Your task to perform on an android device: Add dell xps to the cart on ebay Image 0: 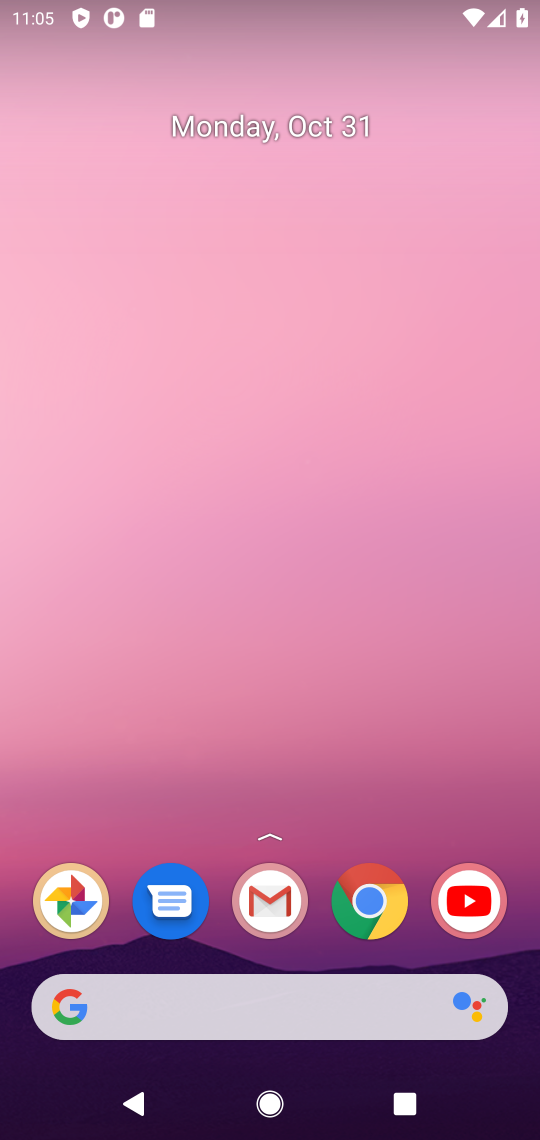
Step 0: drag from (219, 728) to (219, 384)
Your task to perform on an android device: Add dell xps to the cart on ebay Image 1: 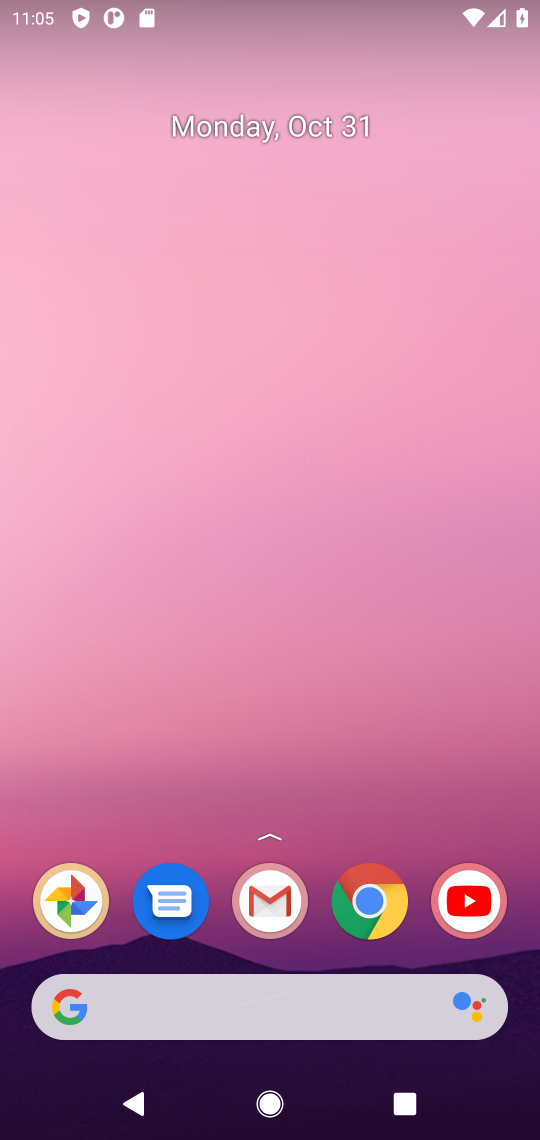
Step 1: drag from (203, 864) to (223, 245)
Your task to perform on an android device: Add dell xps to the cart on ebay Image 2: 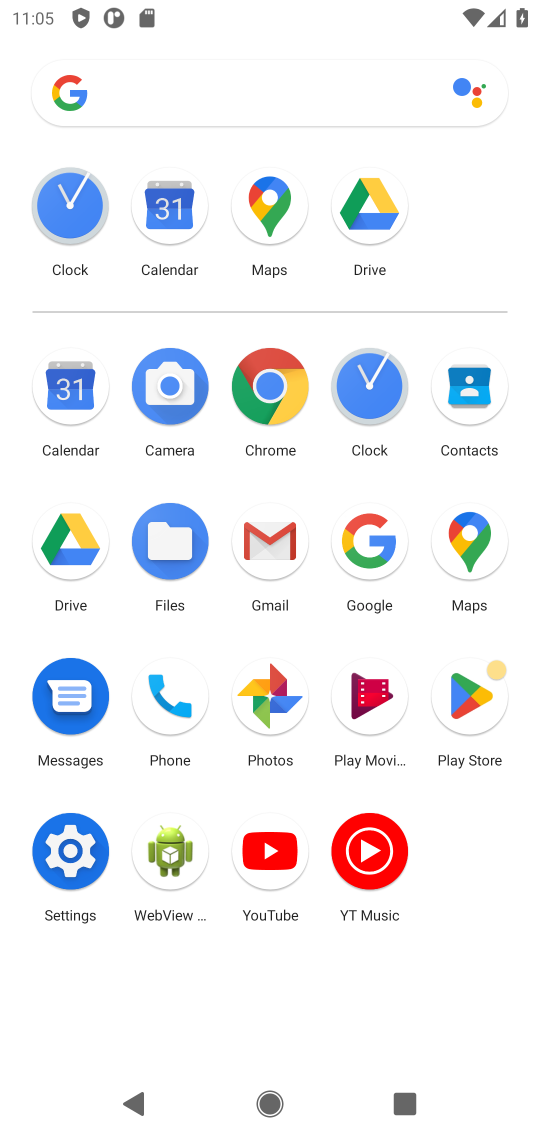
Step 2: click (377, 529)
Your task to perform on an android device: Add dell xps to the cart on ebay Image 3: 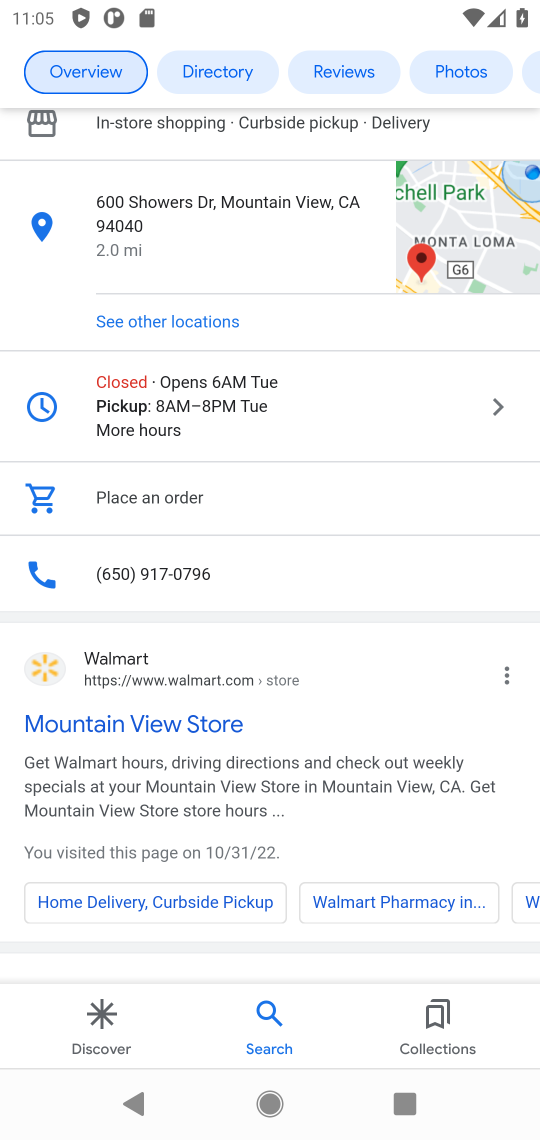
Step 3: drag from (243, 283) to (140, 1009)
Your task to perform on an android device: Add dell xps to the cart on ebay Image 4: 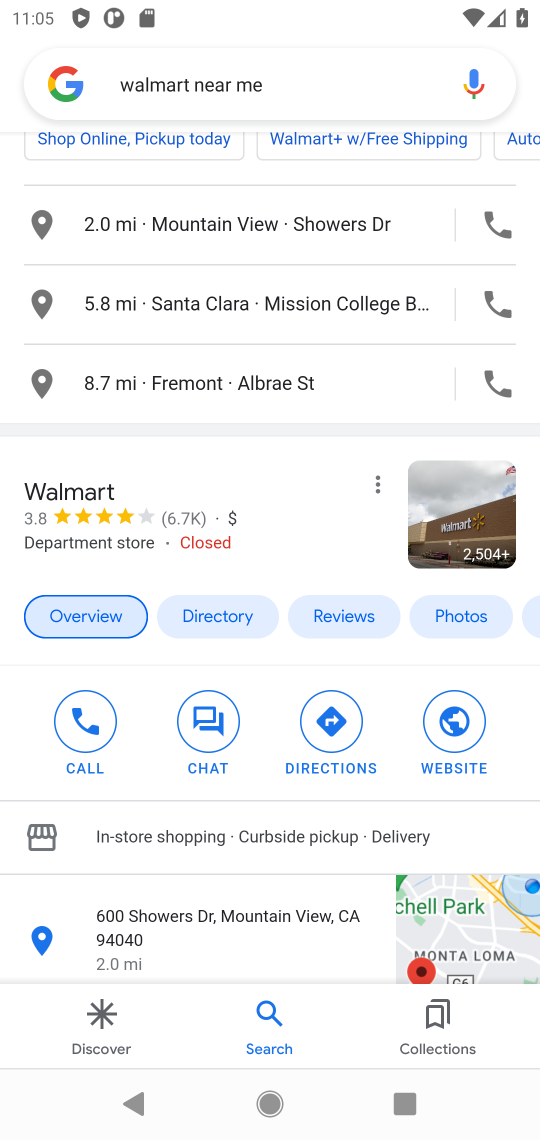
Step 4: click (256, 86)
Your task to perform on an android device: Add dell xps to the cart on ebay Image 5: 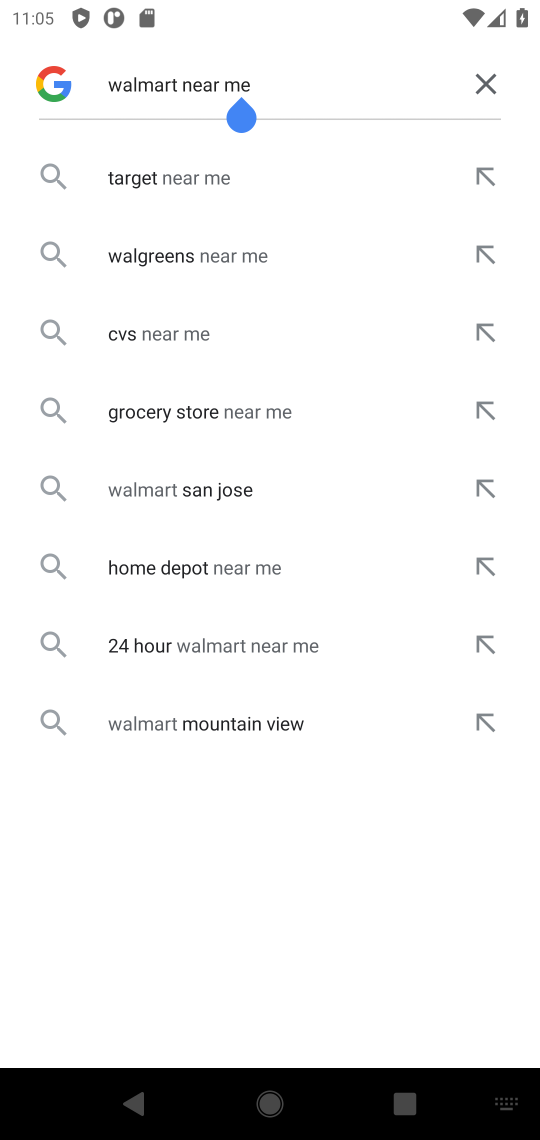
Step 5: click (474, 83)
Your task to perform on an android device: Add dell xps to the cart on ebay Image 6: 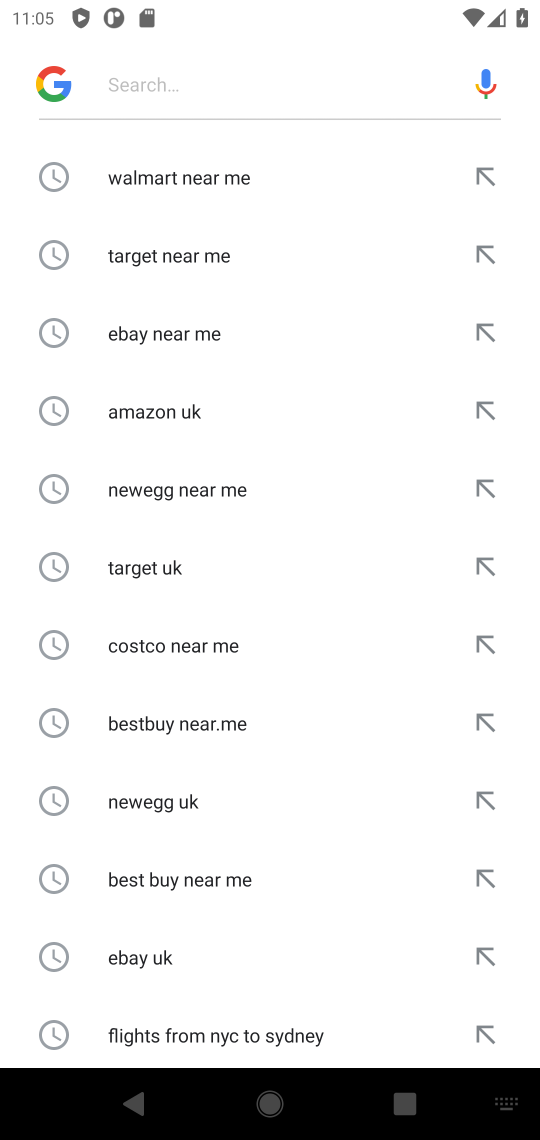
Step 6: click (211, 88)
Your task to perform on an android device: Add dell xps to the cart on ebay Image 7: 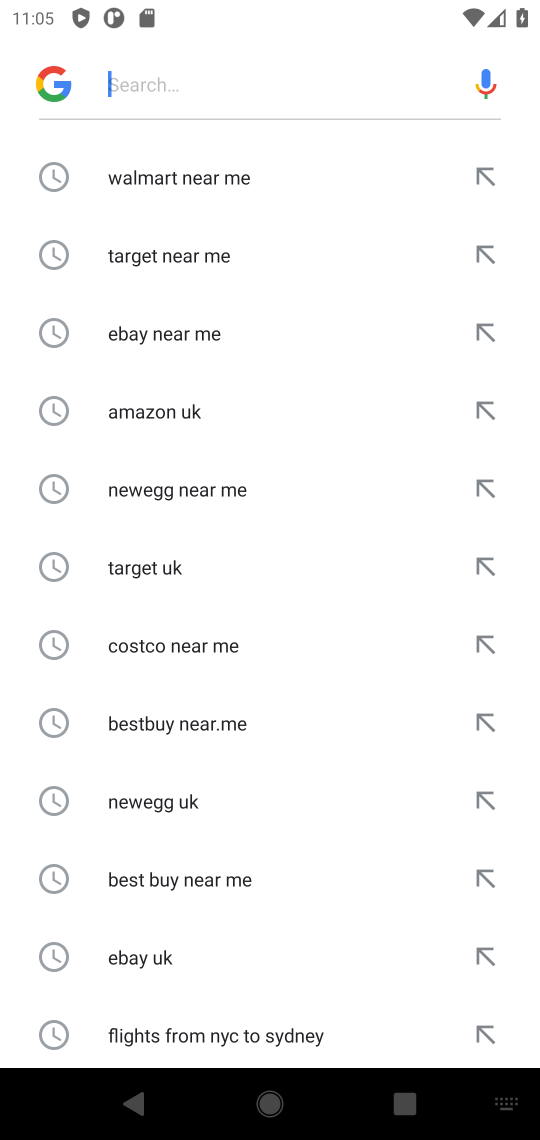
Step 7: type "ebay "
Your task to perform on an android device: Add dell xps to the cart on ebay Image 8: 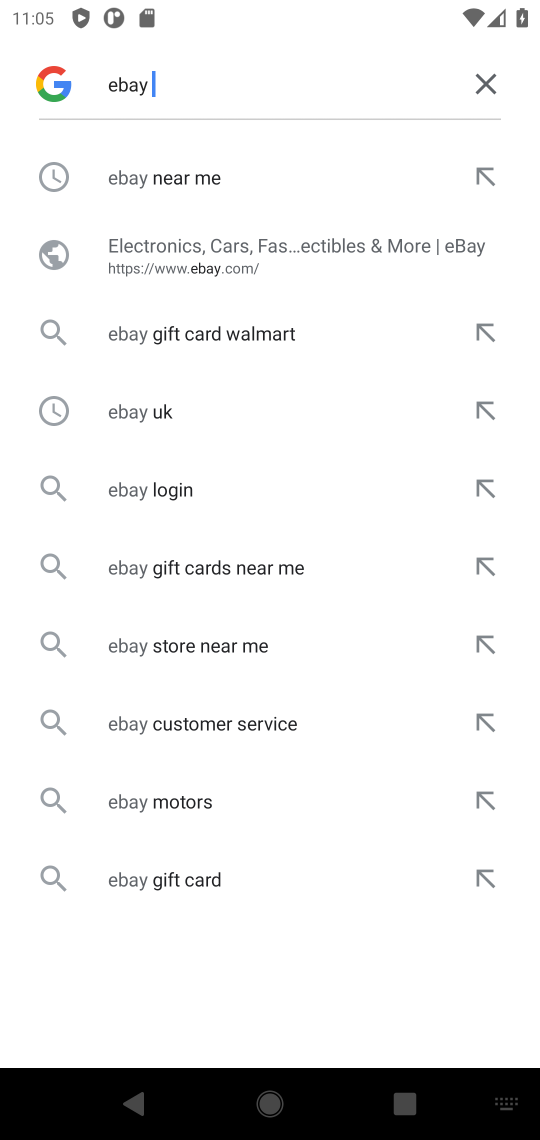
Step 8: click (184, 175)
Your task to perform on an android device: Add dell xps to the cart on ebay Image 9: 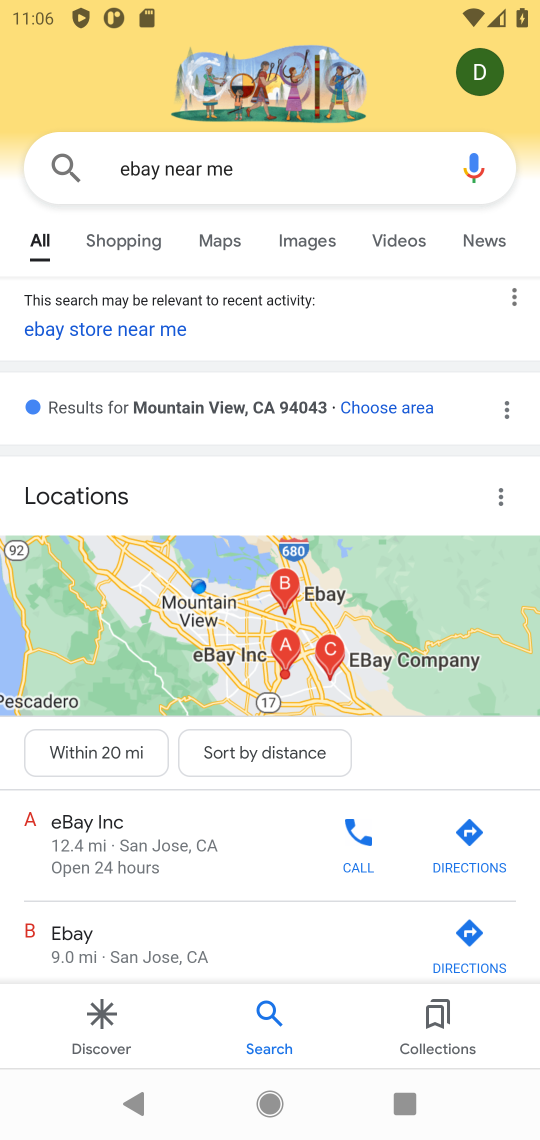
Step 9: drag from (254, 824) to (231, 404)
Your task to perform on an android device: Add dell xps to the cart on ebay Image 10: 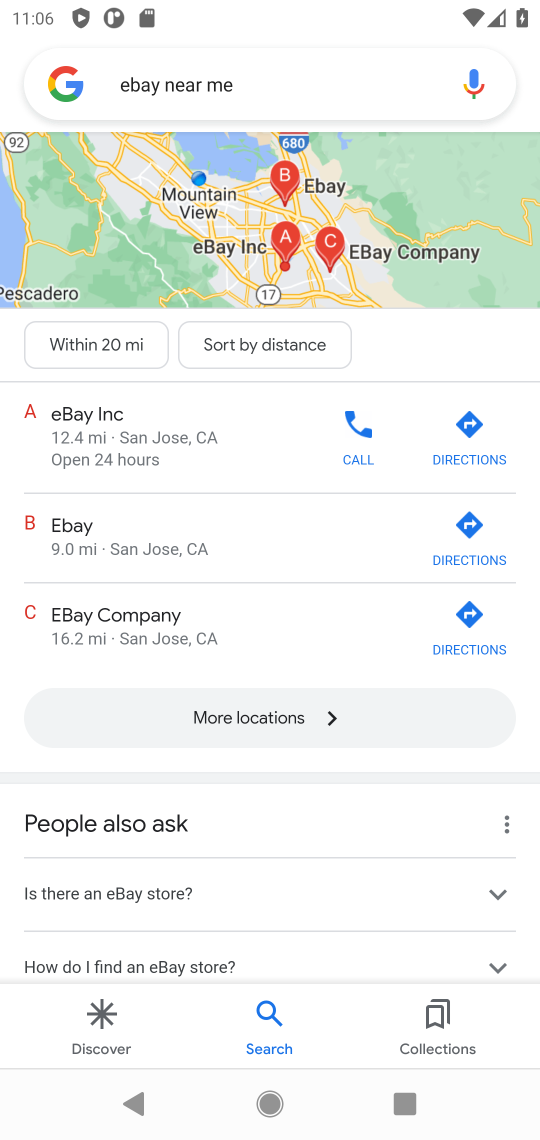
Step 10: drag from (200, 162) to (170, 988)
Your task to perform on an android device: Add dell xps to the cart on ebay Image 11: 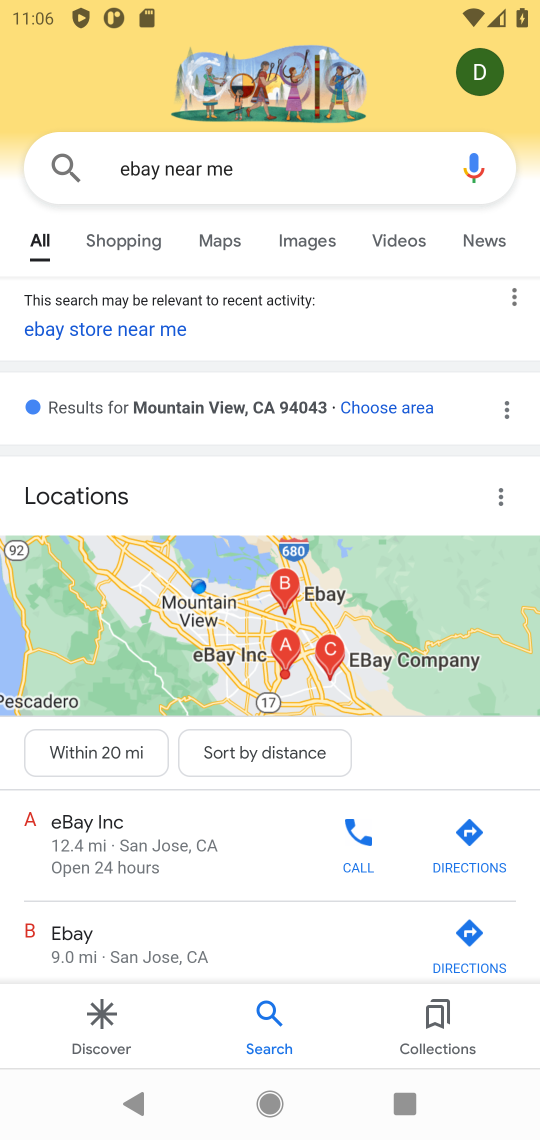
Step 11: drag from (246, 797) to (237, 197)
Your task to perform on an android device: Add dell xps to the cart on ebay Image 12: 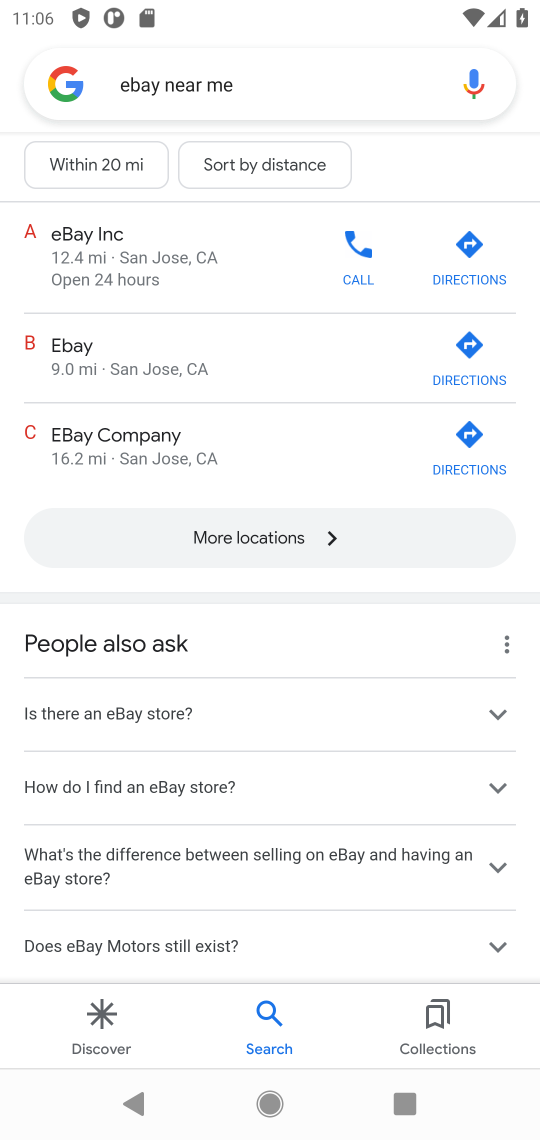
Step 12: drag from (163, 885) to (177, 297)
Your task to perform on an android device: Add dell xps to the cart on ebay Image 13: 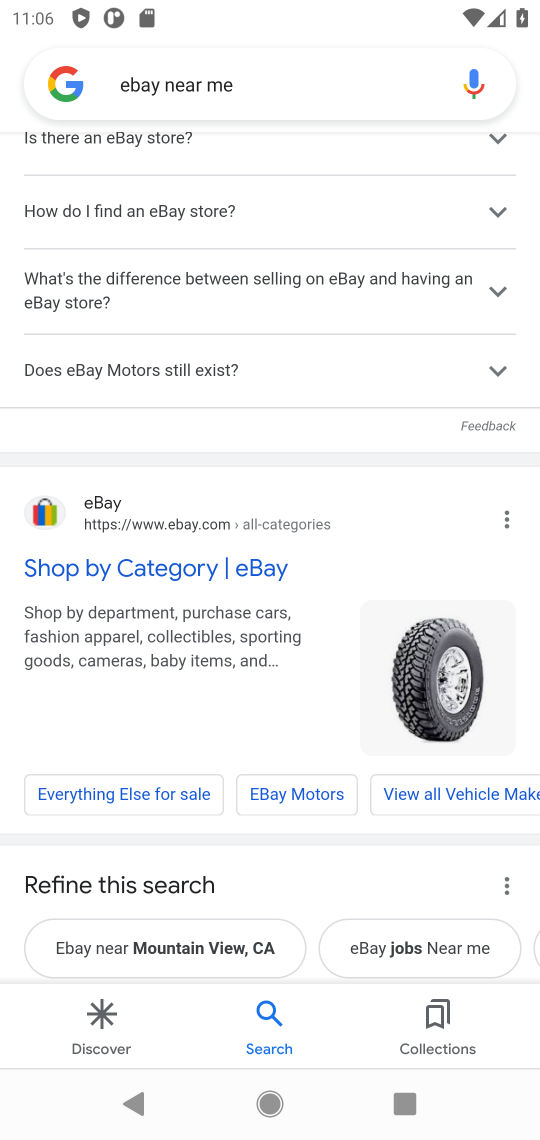
Step 13: click (60, 517)
Your task to perform on an android device: Add dell xps to the cart on ebay Image 14: 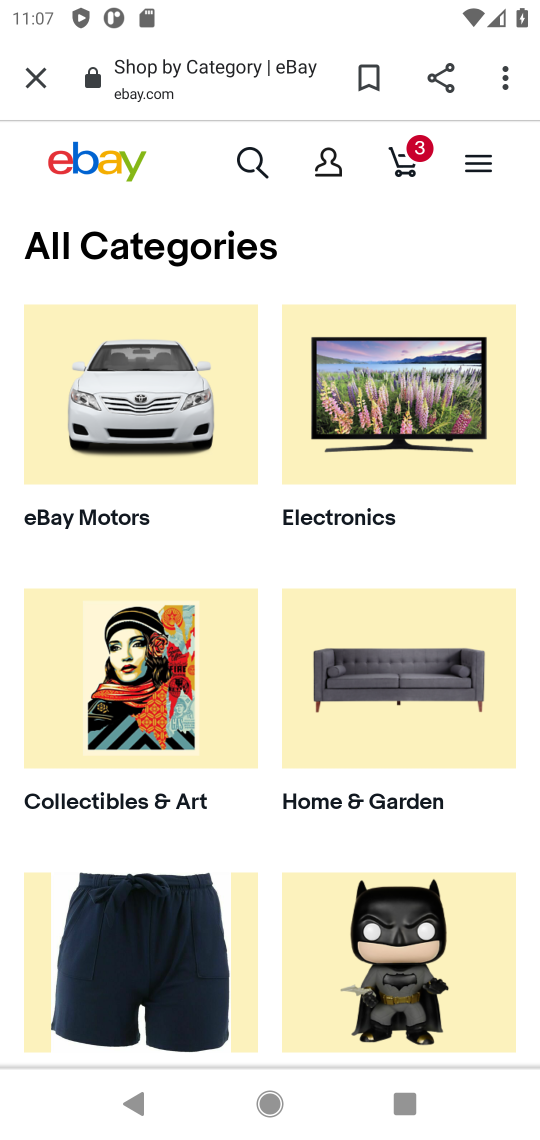
Step 14: click (247, 154)
Your task to perform on an android device: Add dell xps to the cart on ebay Image 15: 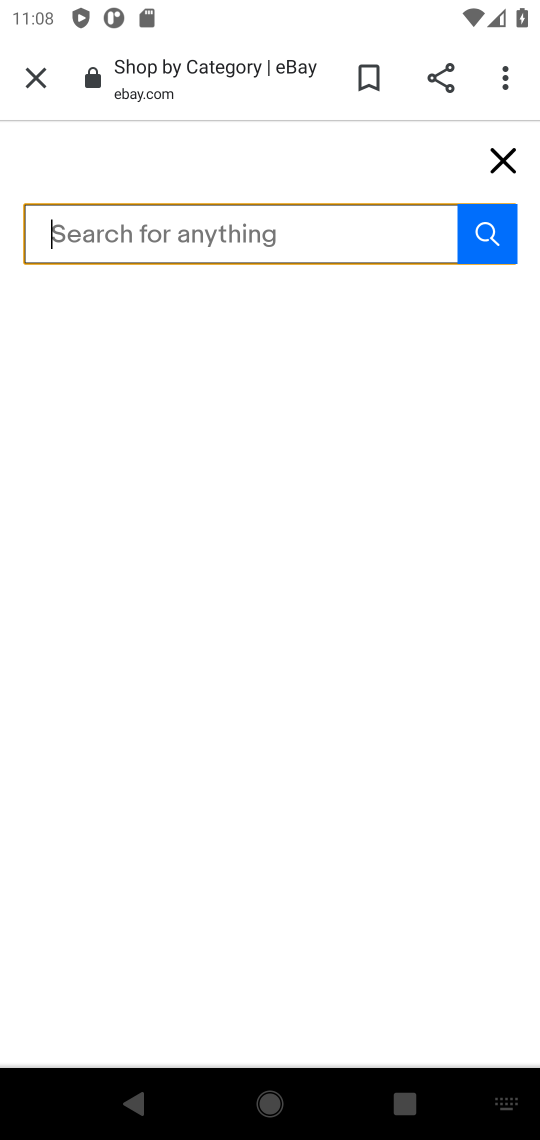
Step 15: click (221, 231)
Your task to perform on an android device: Add dell xps to the cart on ebay Image 16: 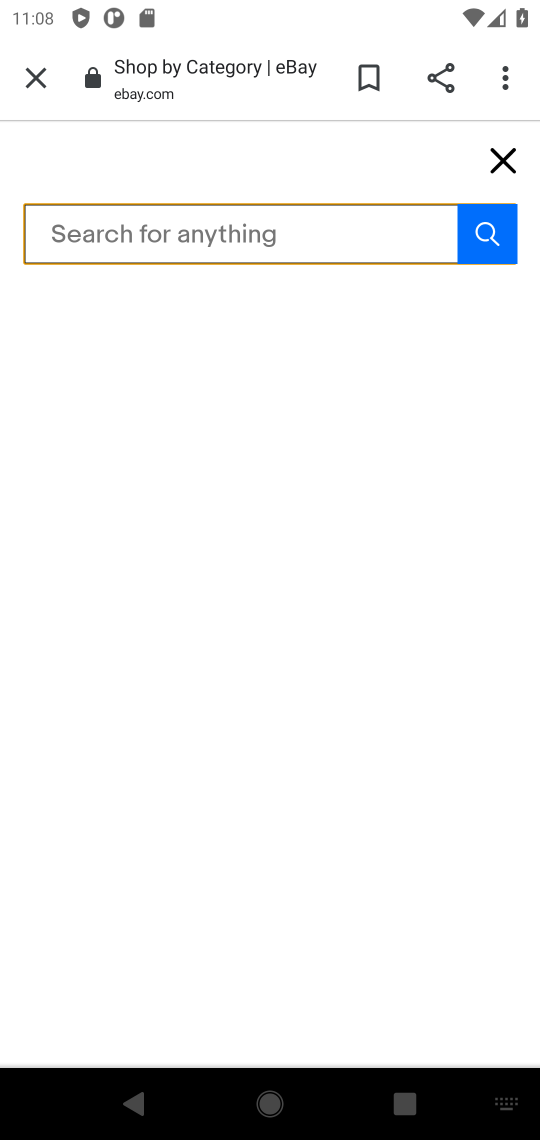
Step 16: type "dell xps "
Your task to perform on an android device: Add dell xps to the cart on ebay Image 17: 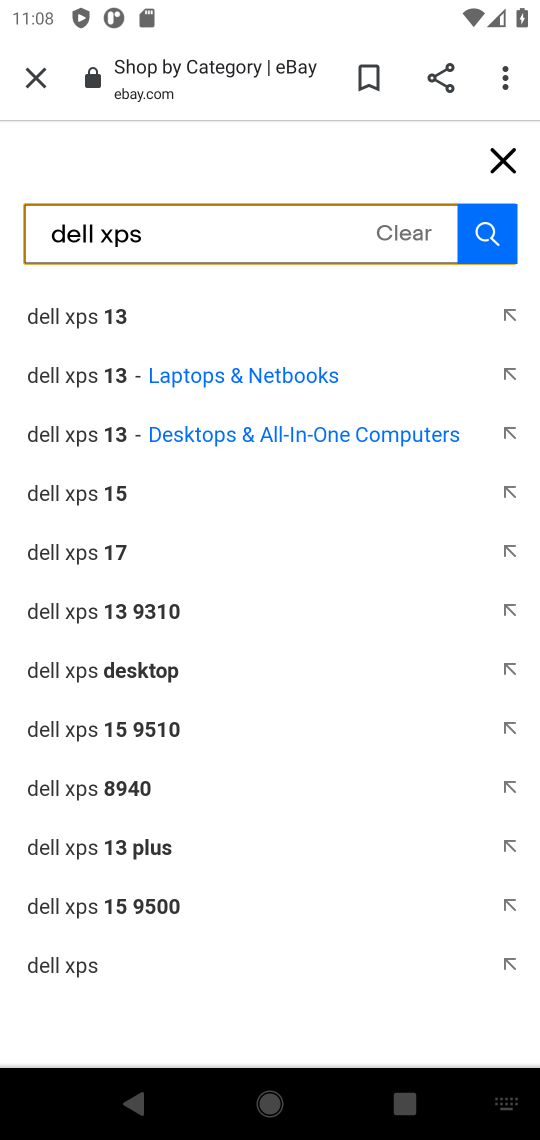
Step 17: click (73, 300)
Your task to perform on an android device: Add dell xps to the cart on ebay Image 18: 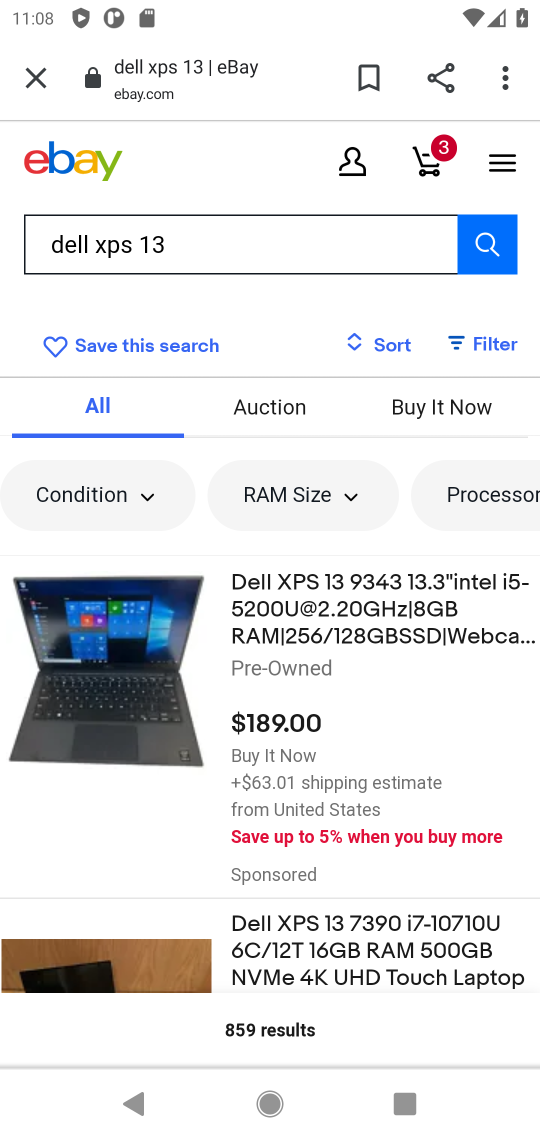
Step 18: click (307, 634)
Your task to perform on an android device: Add dell xps to the cart on ebay Image 19: 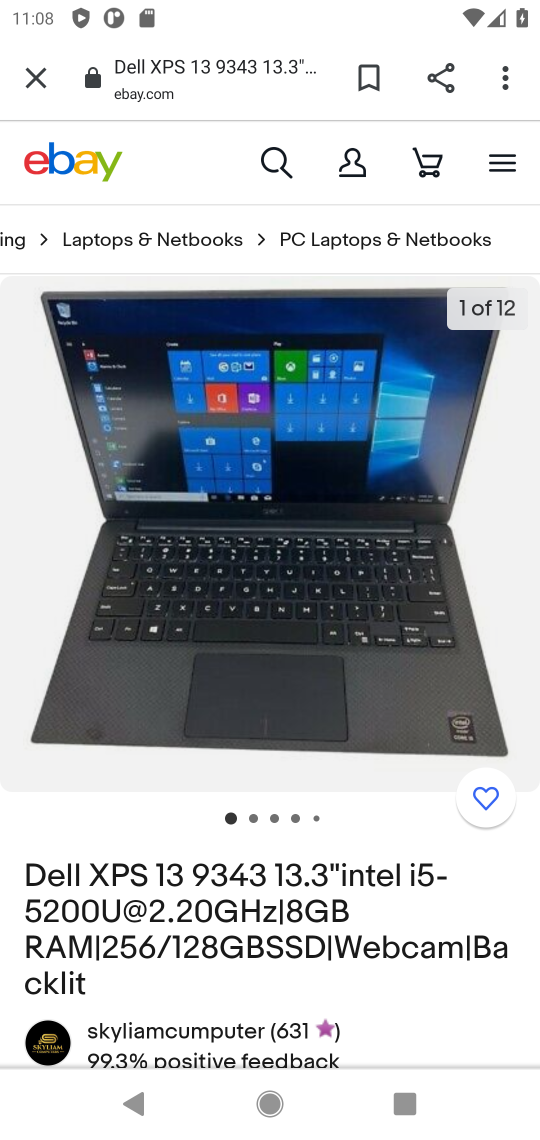
Step 19: drag from (238, 906) to (282, 411)
Your task to perform on an android device: Add dell xps to the cart on ebay Image 20: 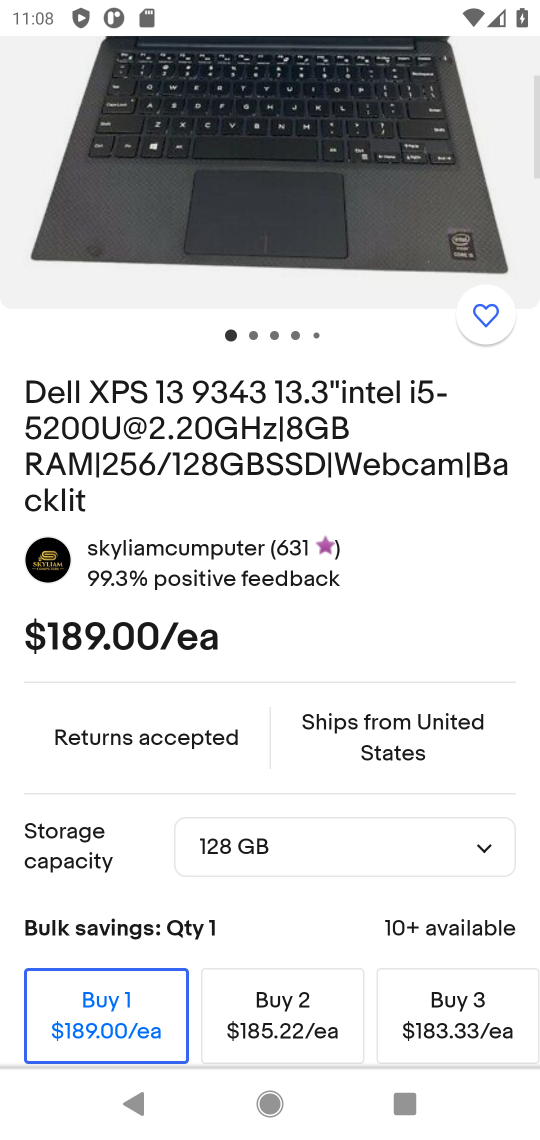
Step 20: drag from (250, 935) to (326, 434)
Your task to perform on an android device: Add dell xps to the cart on ebay Image 21: 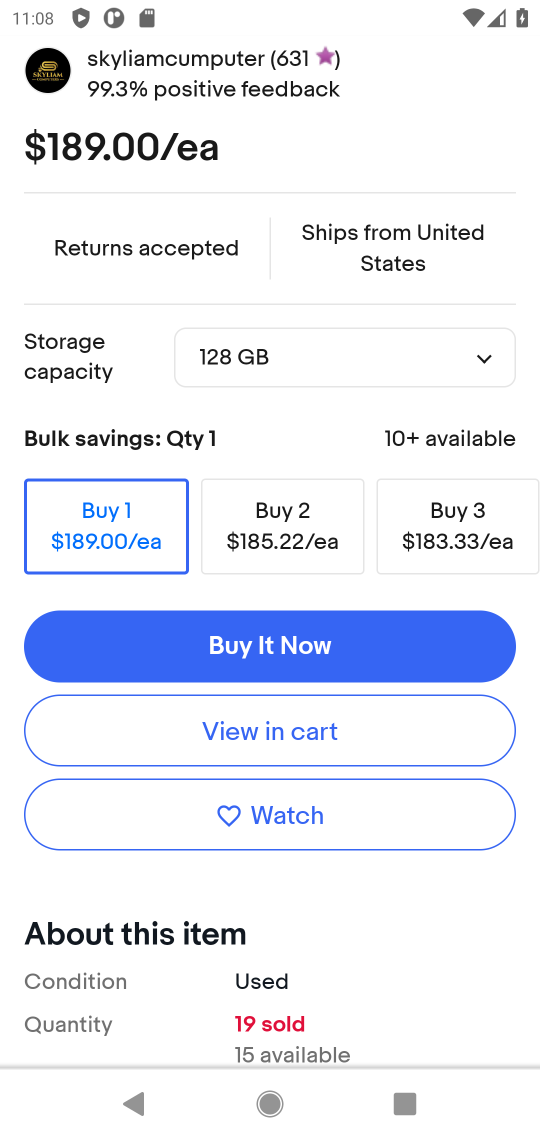
Step 21: click (262, 726)
Your task to perform on an android device: Add dell xps to the cart on ebay Image 22: 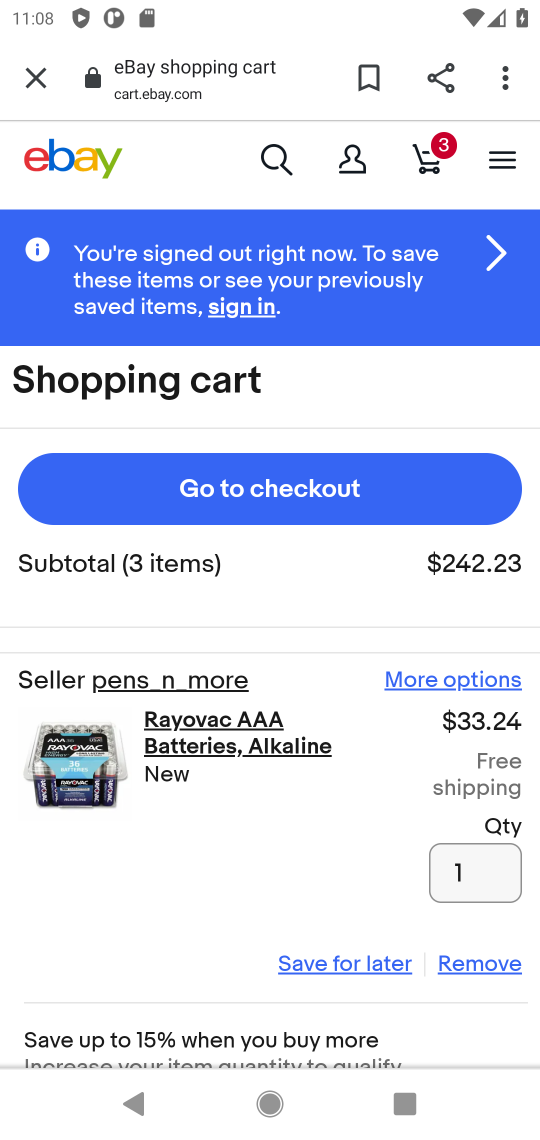
Step 22: task complete